Your task to perform on an android device: Clear the cart on ebay.com. Add "asus zenbook" to the cart on ebay.com Image 0: 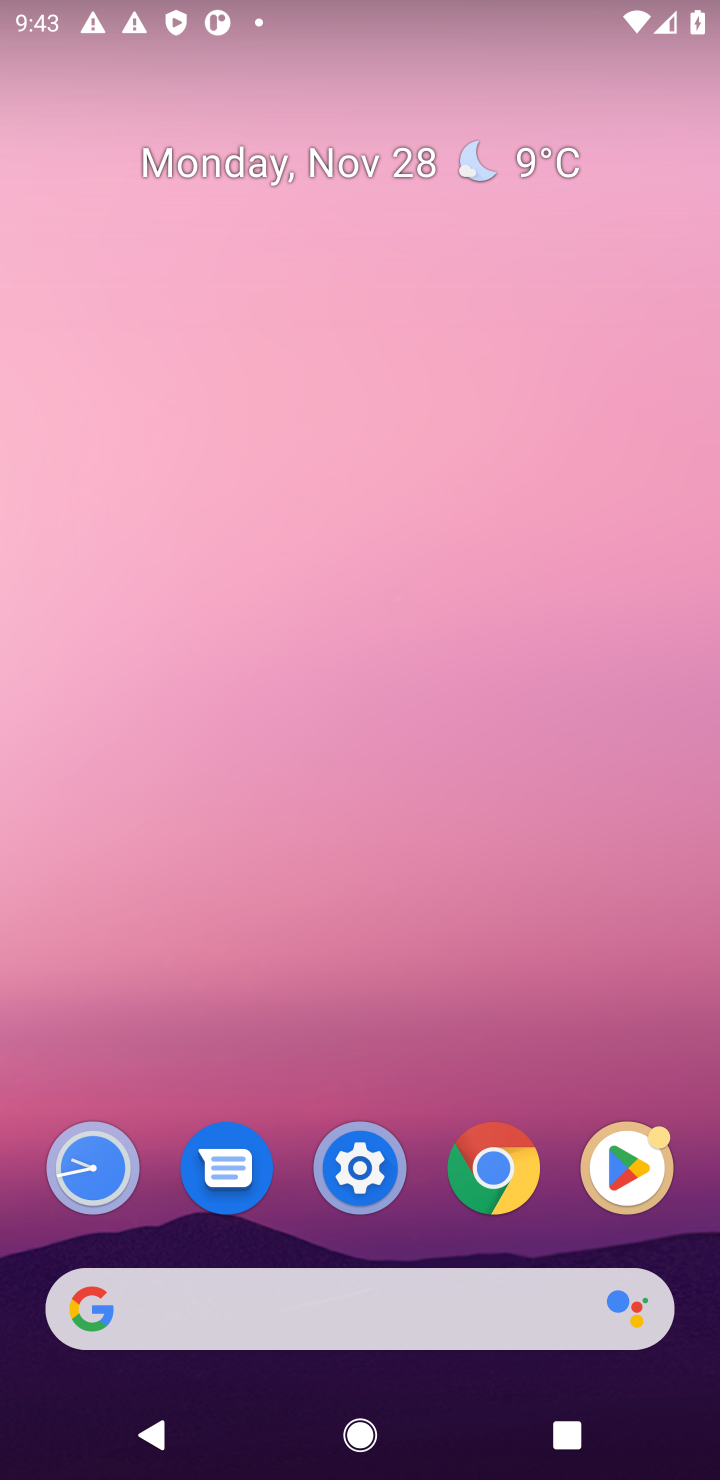
Step 0: click (359, 1296)
Your task to perform on an android device: Clear the cart on ebay.com. Add "asus zenbook" to the cart on ebay.com Image 1: 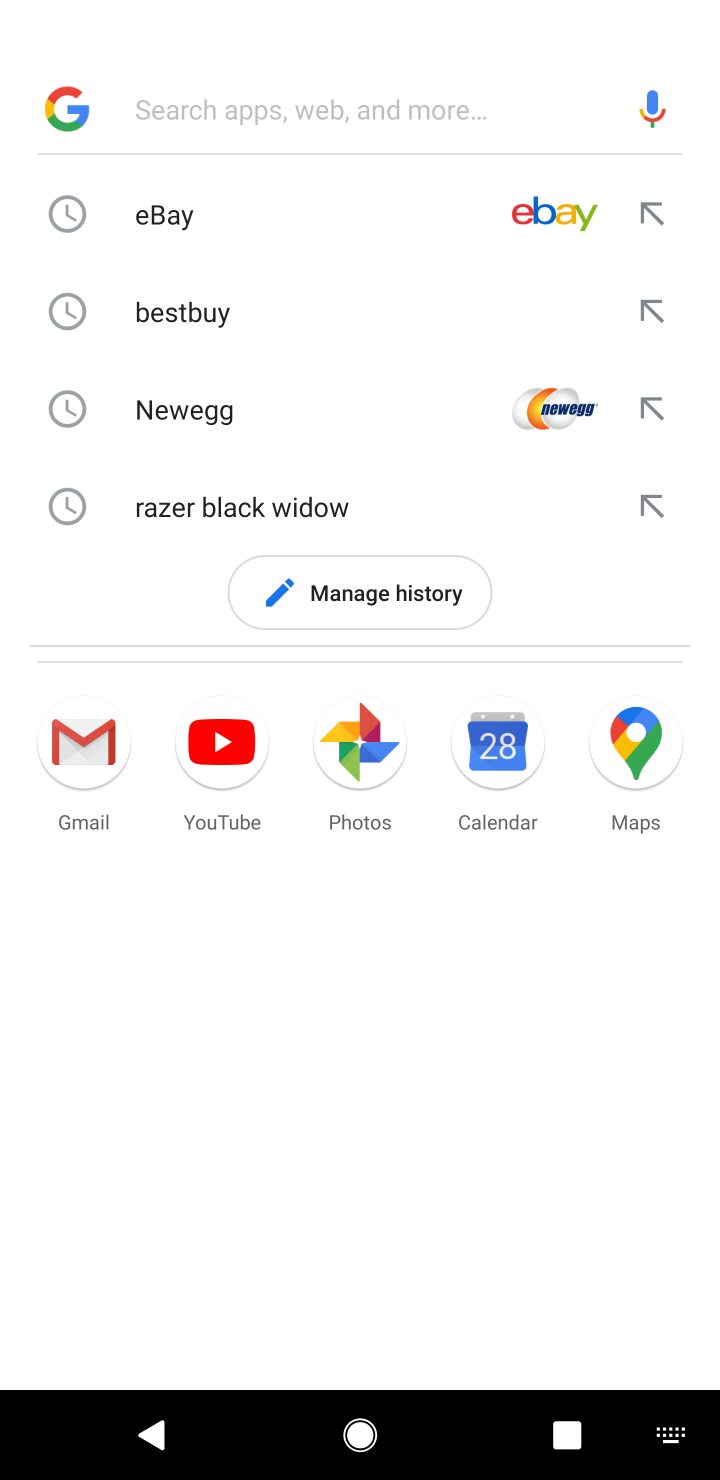
Step 1: click (558, 234)
Your task to perform on an android device: Clear the cart on ebay.com. Add "asus zenbook" to the cart on ebay.com Image 2: 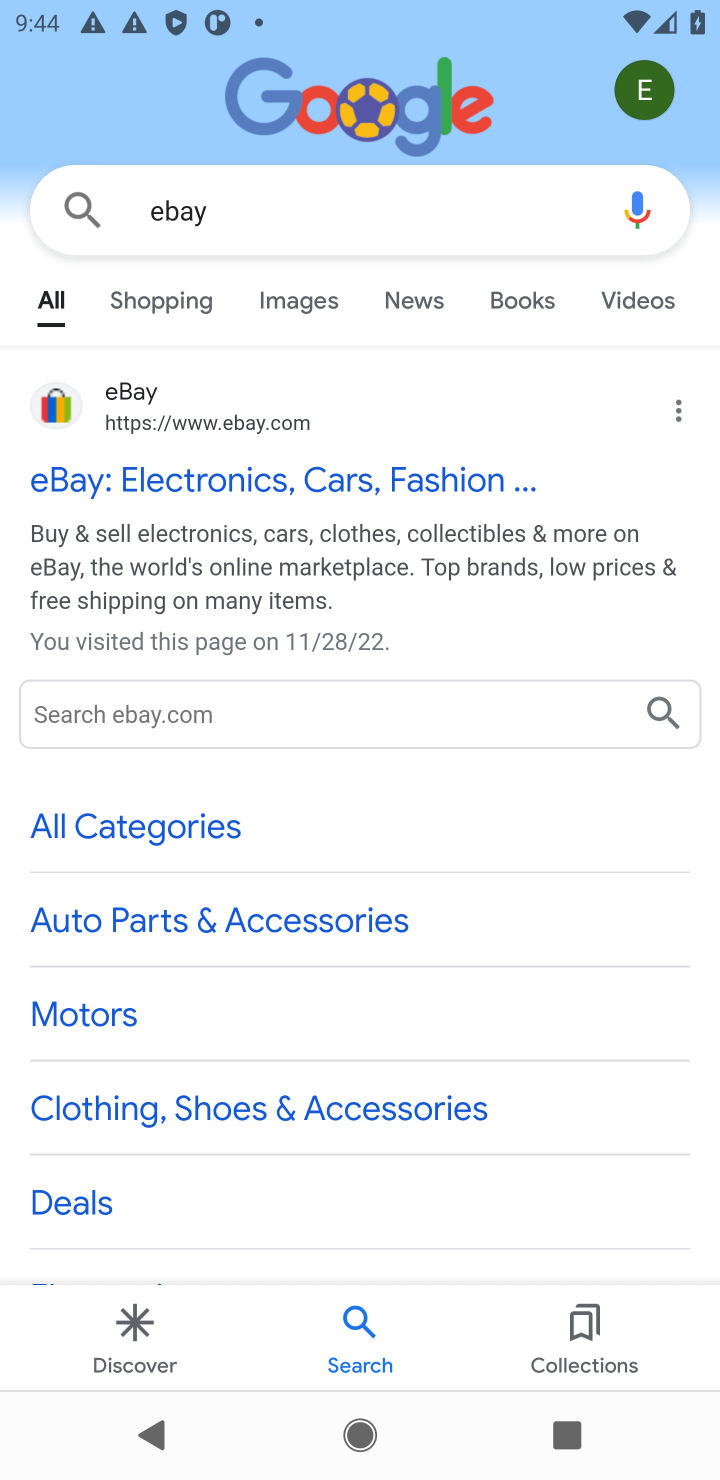
Step 2: click (220, 502)
Your task to perform on an android device: Clear the cart on ebay.com. Add "asus zenbook" to the cart on ebay.com Image 3: 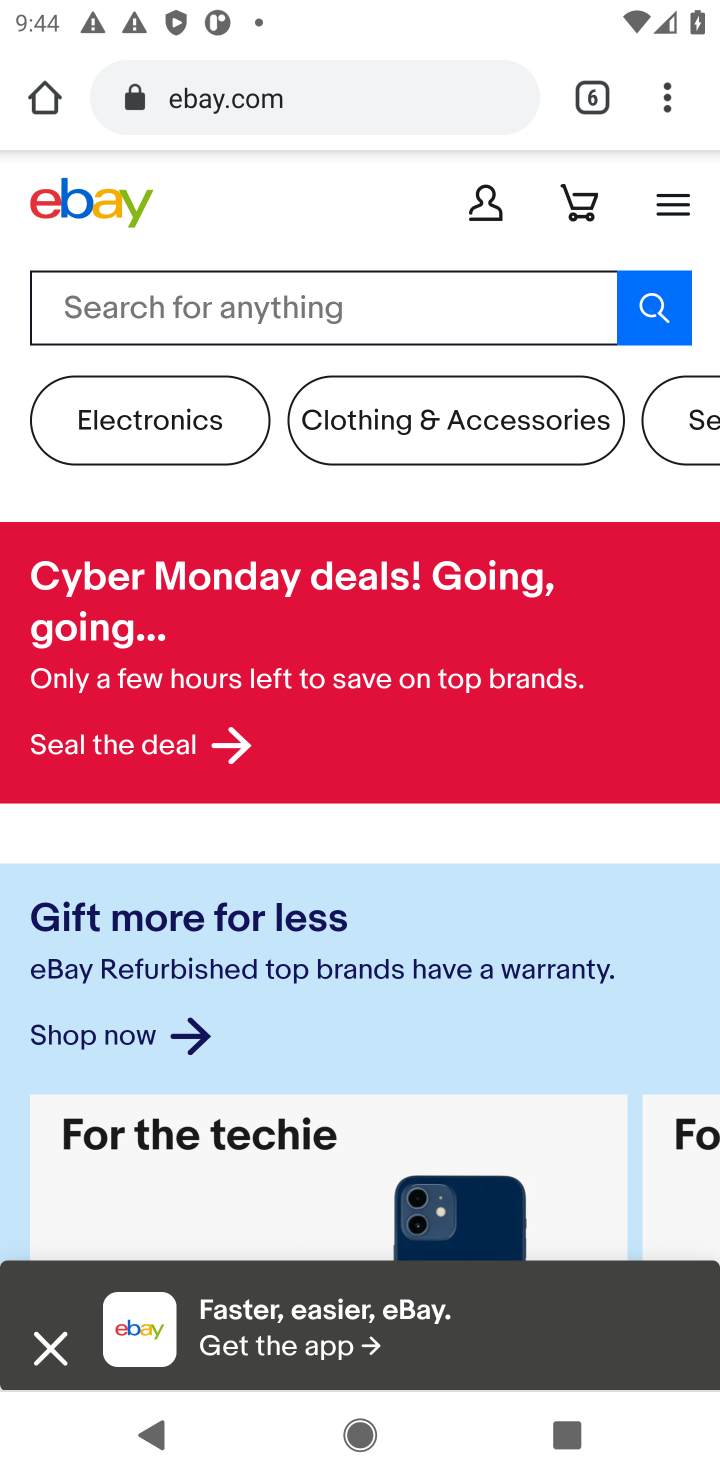
Step 3: click (296, 298)
Your task to perform on an android device: Clear the cart on ebay.com. Add "asus zenbook" to the cart on ebay.com Image 4: 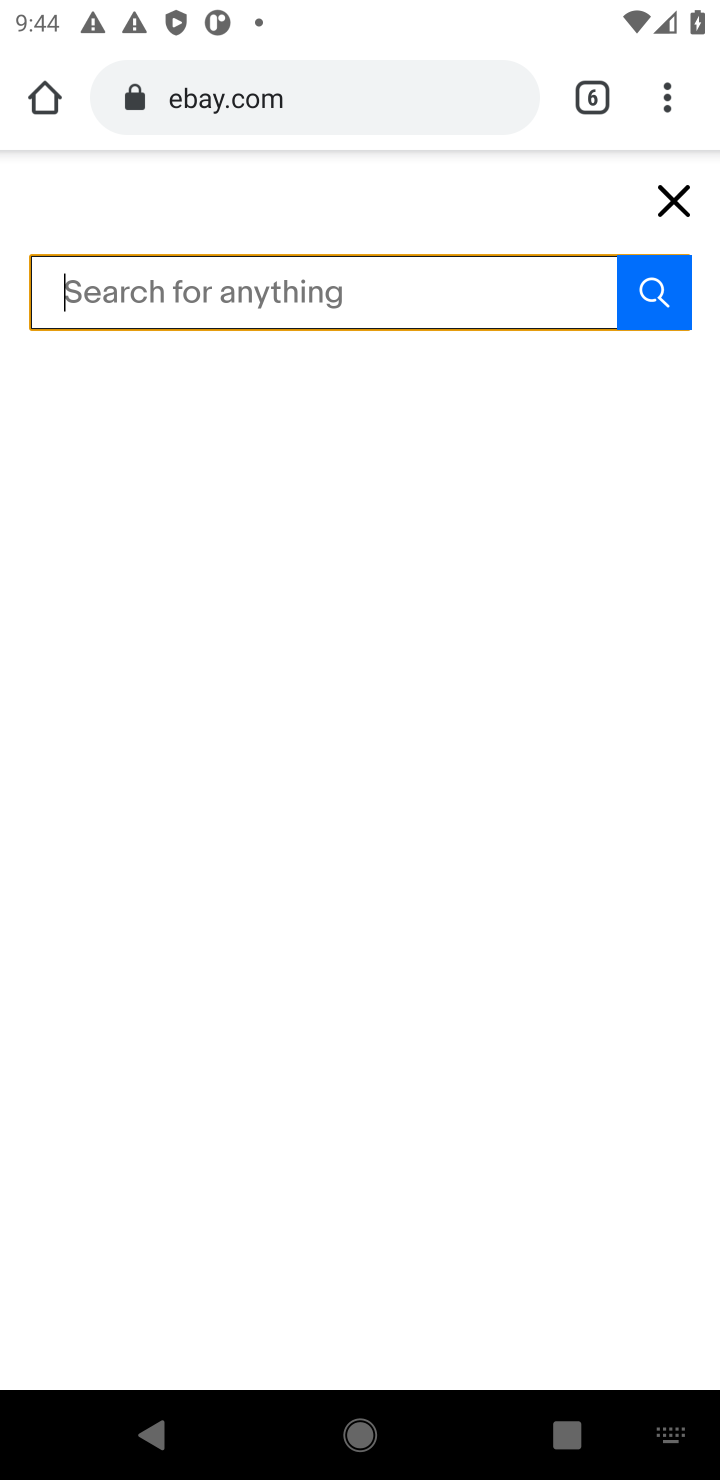
Step 4: type "asus zenbook"
Your task to perform on an android device: Clear the cart on ebay.com. Add "asus zenbook" to the cart on ebay.com Image 5: 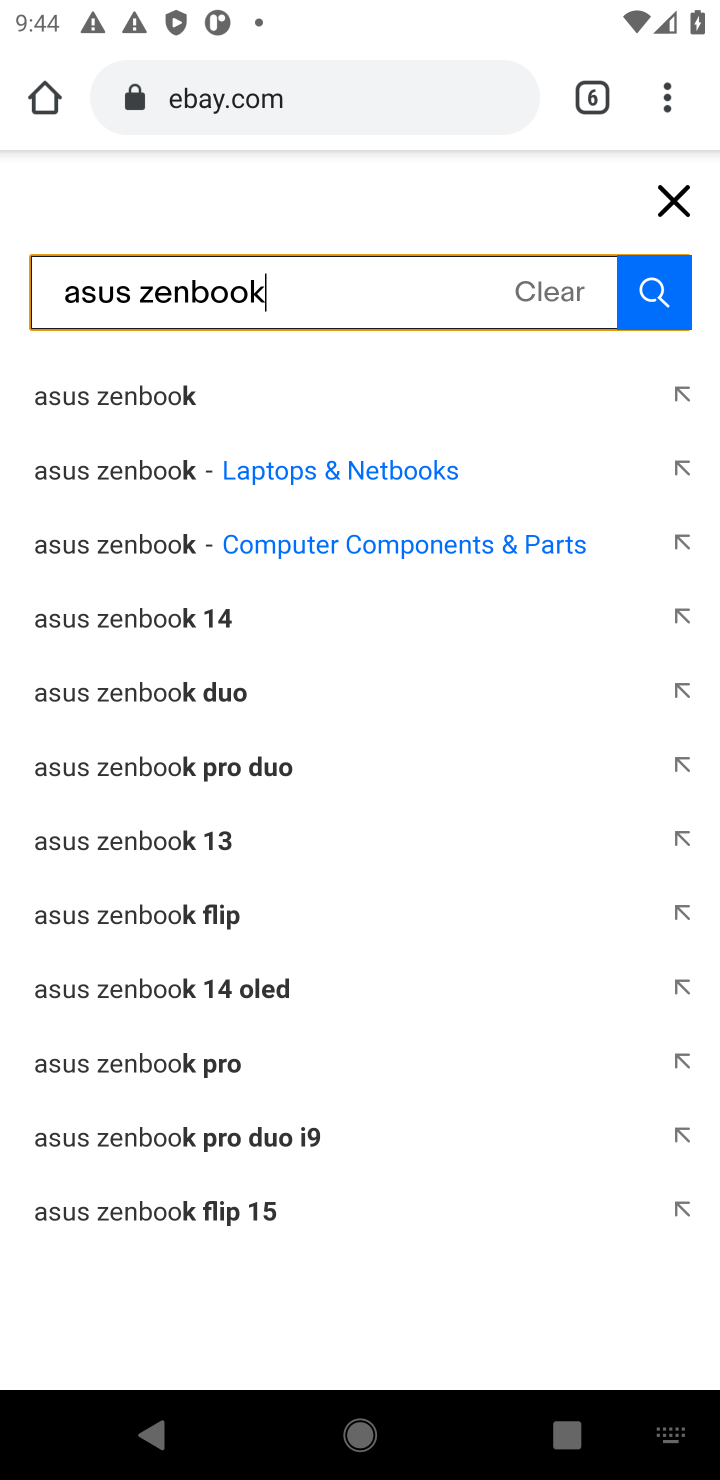
Step 5: click (636, 292)
Your task to perform on an android device: Clear the cart on ebay.com. Add "asus zenbook" to the cart on ebay.com Image 6: 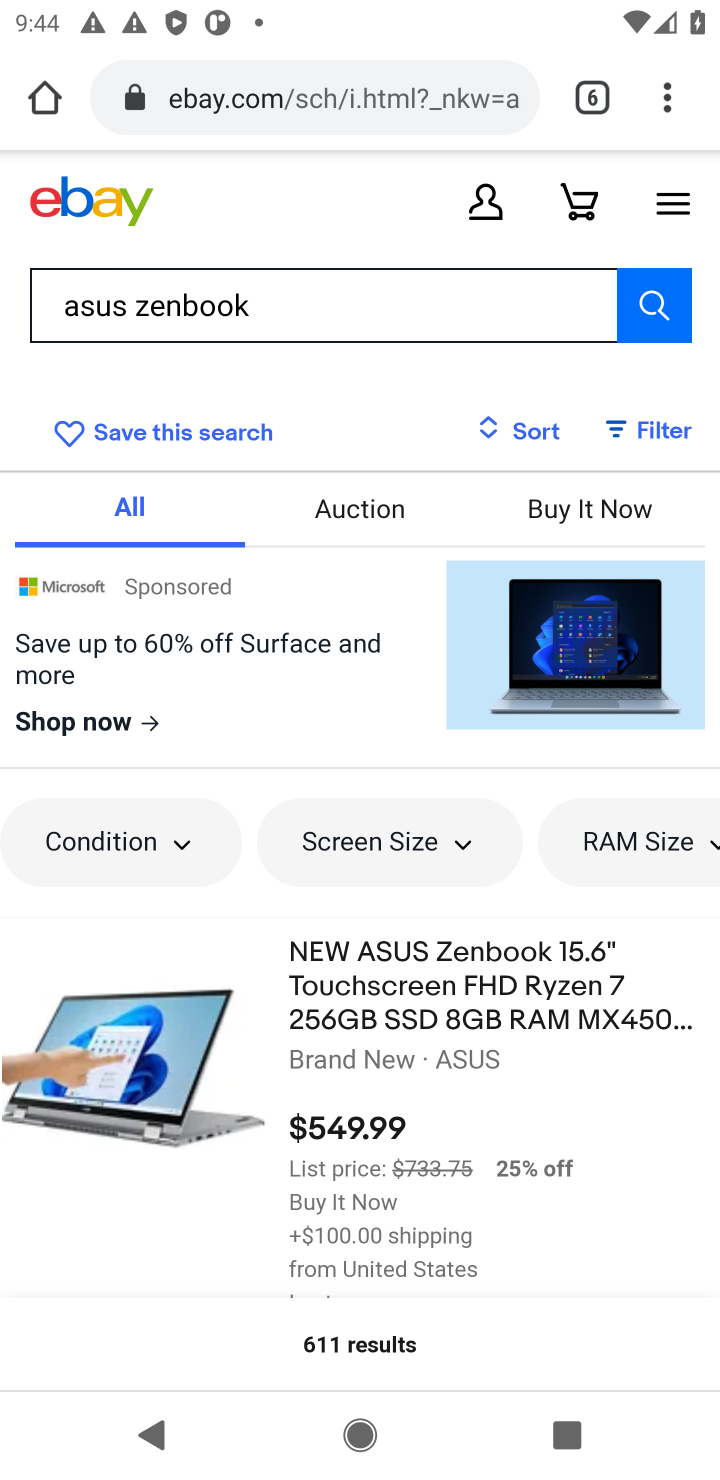
Step 6: click (405, 973)
Your task to perform on an android device: Clear the cart on ebay.com. Add "asus zenbook" to the cart on ebay.com Image 7: 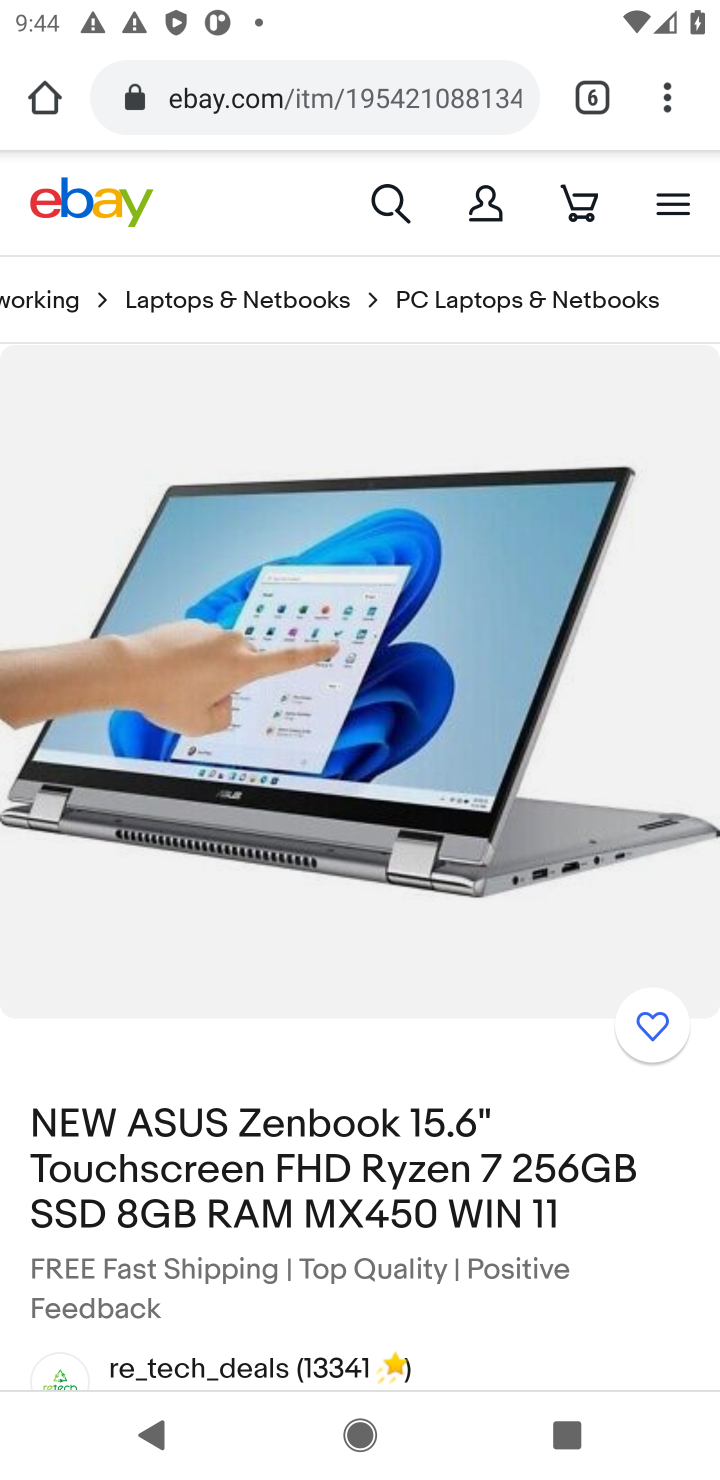
Step 7: drag from (421, 1032) to (325, 160)
Your task to perform on an android device: Clear the cart on ebay.com. Add "asus zenbook" to the cart on ebay.com Image 8: 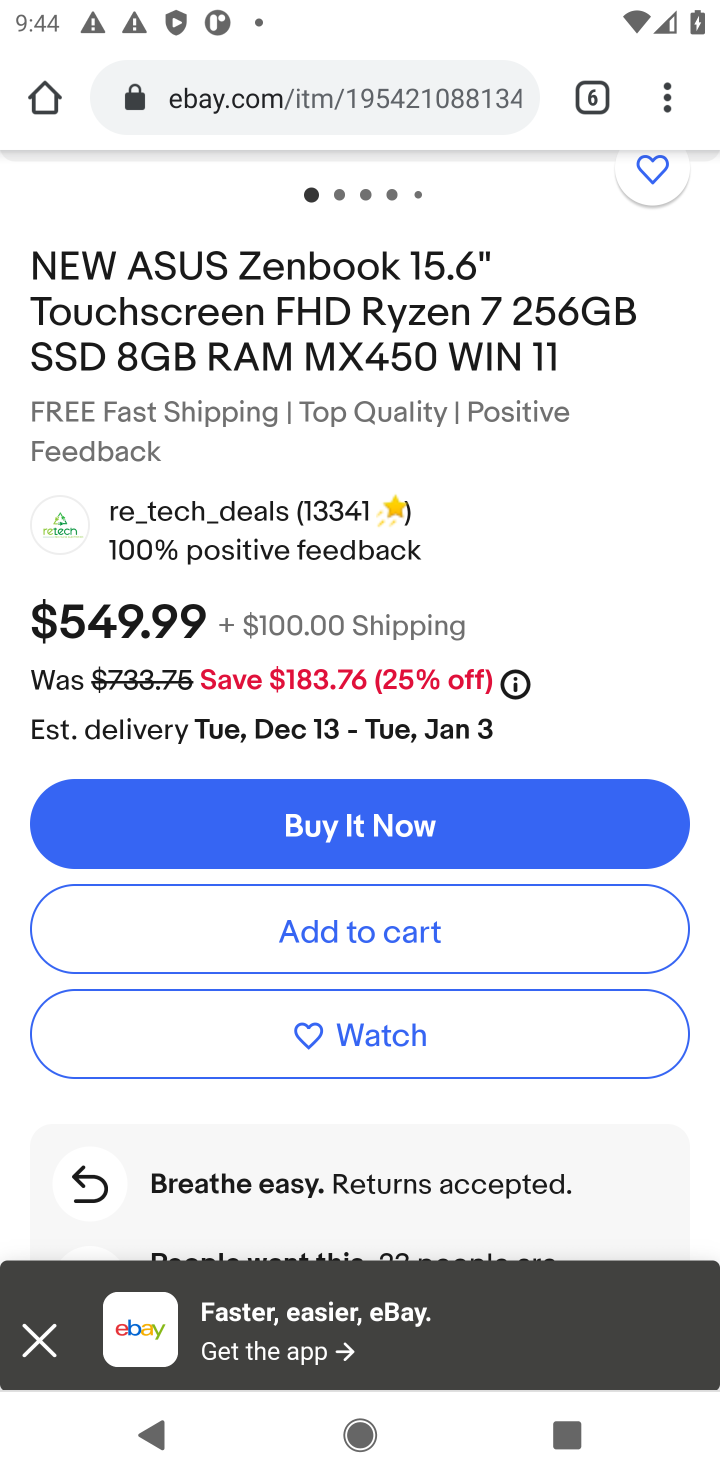
Step 8: click (378, 911)
Your task to perform on an android device: Clear the cart on ebay.com. Add "asus zenbook" to the cart on ebay.com Image 9: 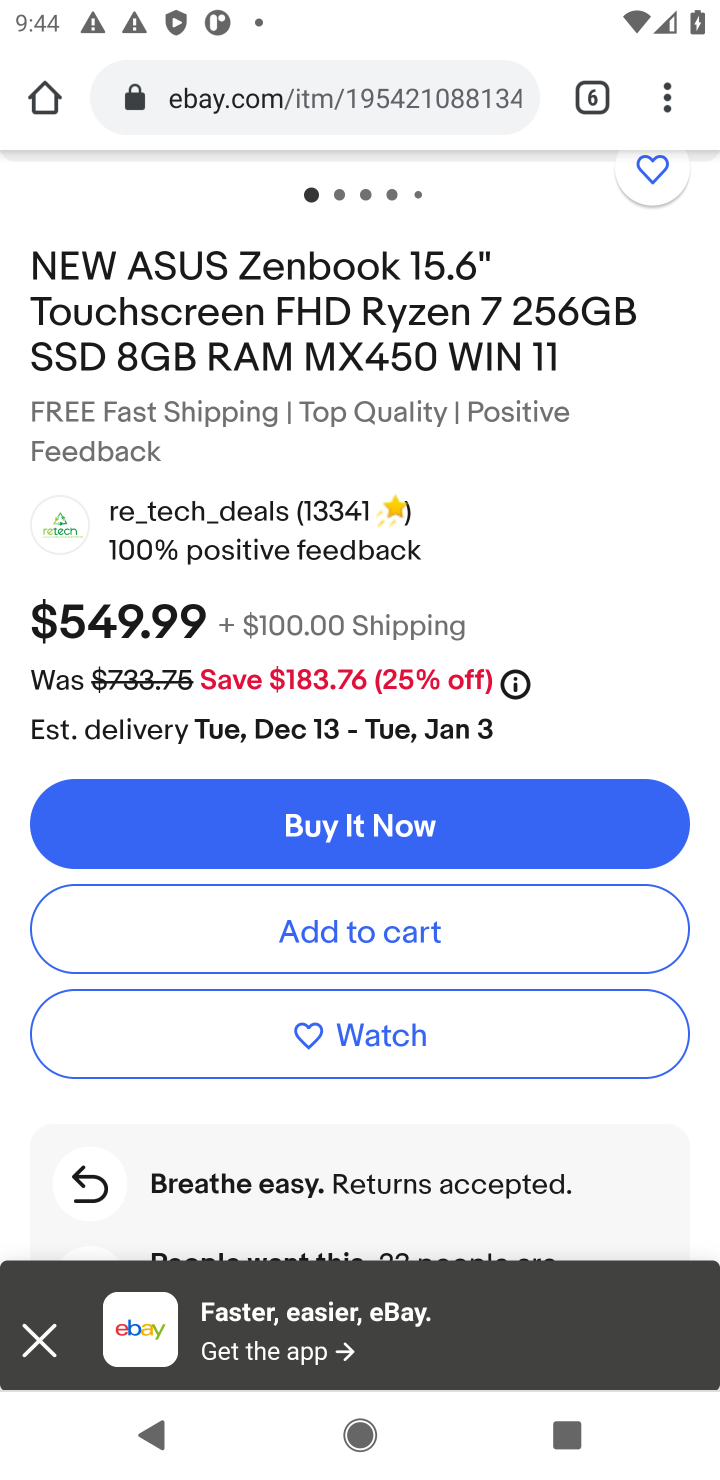
Step 9: task complete